Your task to perform on an android device: What's on my calendar tomorrow? Image 0: 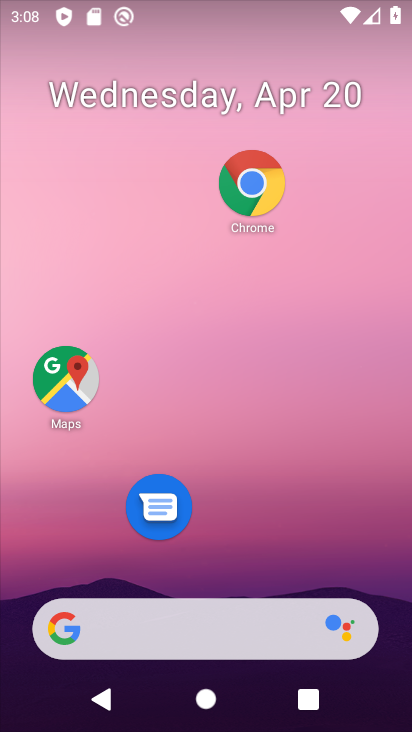
Step 0: drag from (187, 579) to (196, 155)
Your task to perform on an android device: What's on my calendar tomorrow? Image 1: 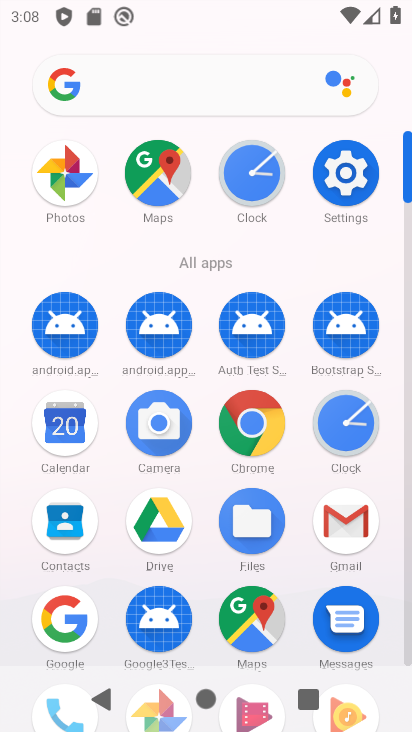
Step 1: click (74, 441)
Your task to perform on an android device: What's on my calendar tomorrow? Image 2: 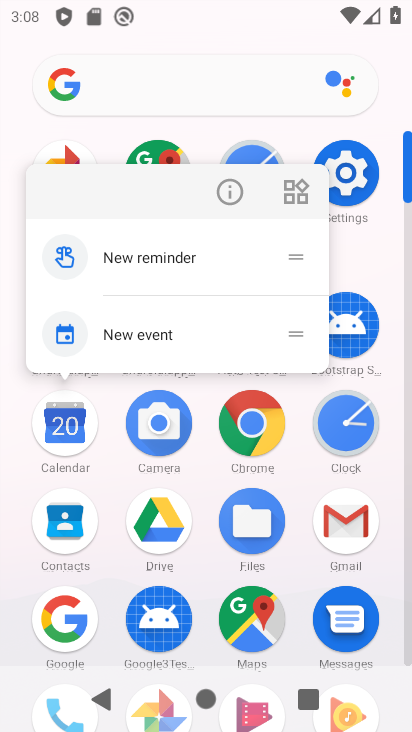
Step 2: click (72, 434)
Your task to perform on an android device: What's on my calendar tomorrow? Image 3: 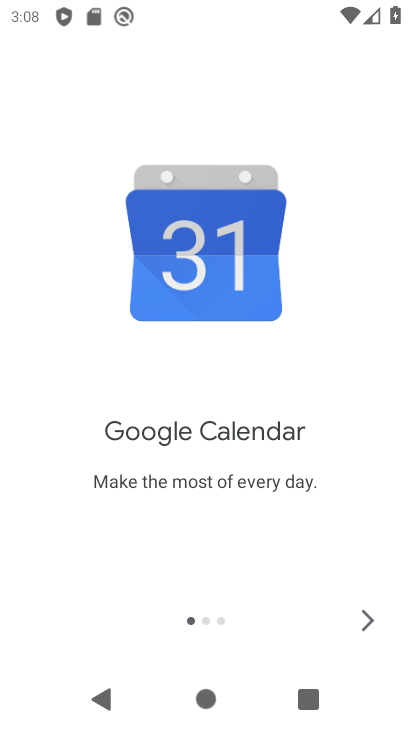
Step 3: click (374, 622)
Your task to perform on an android device: What's on my calendar tomorrow? Image 4: 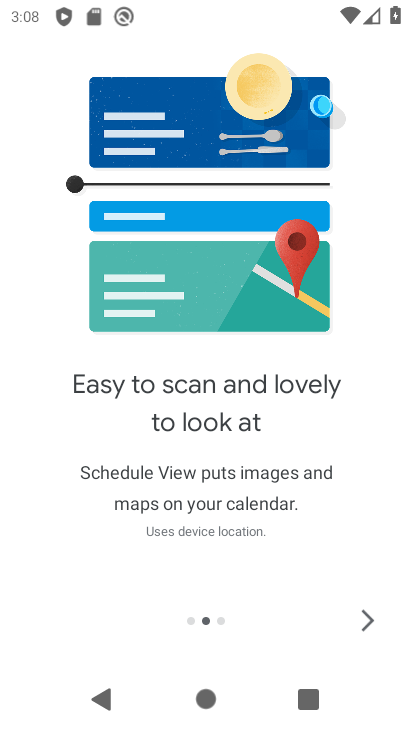
Step 4: click (374, 622)
Your task to perform on an android device: What's on my calendar tomorrow? Image 5: 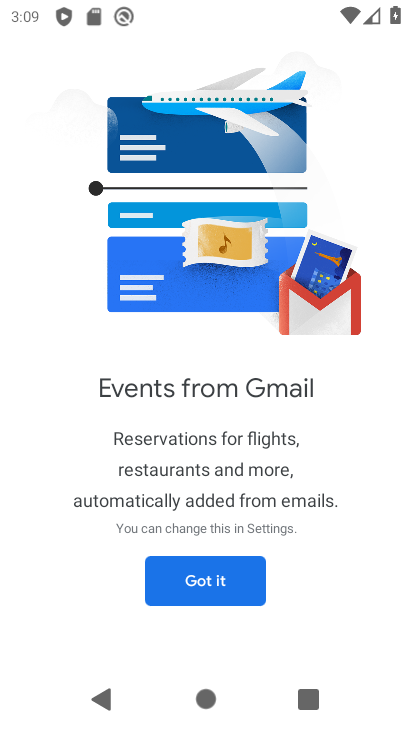
Step 5: click (246, 574)
Your task to perform on an android device: What's on my calendar tomorrow? Image 6: 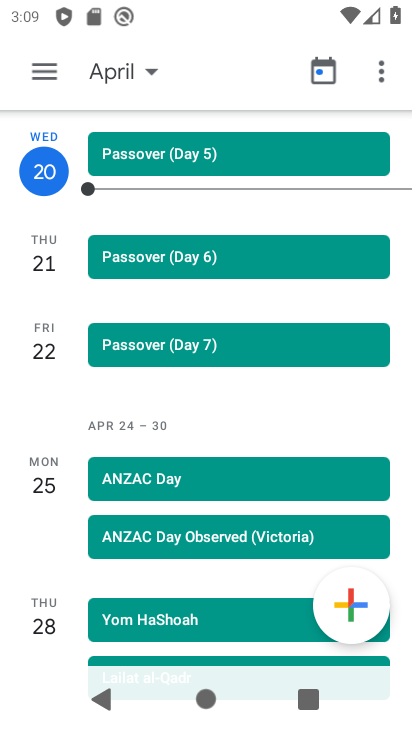
Step 6: click (130, 66)
Your task to perform on an android device: What's on my calendar tomorrow? Image 7: 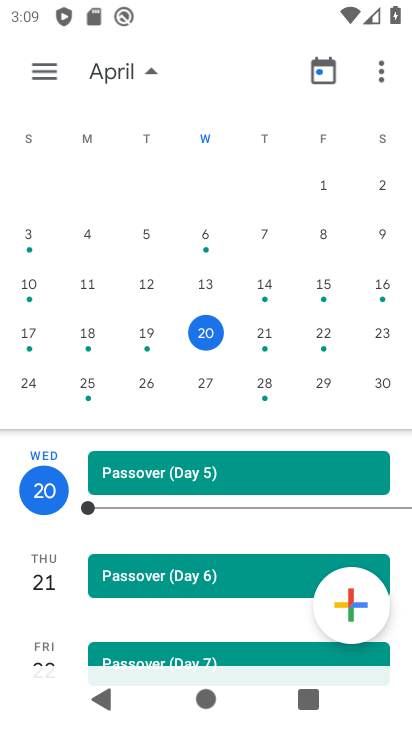
Step 7: drag from (333, 310) to (62, 229)
Your task to perform on an android device: What's on my calendar tomorrow? Image 8: 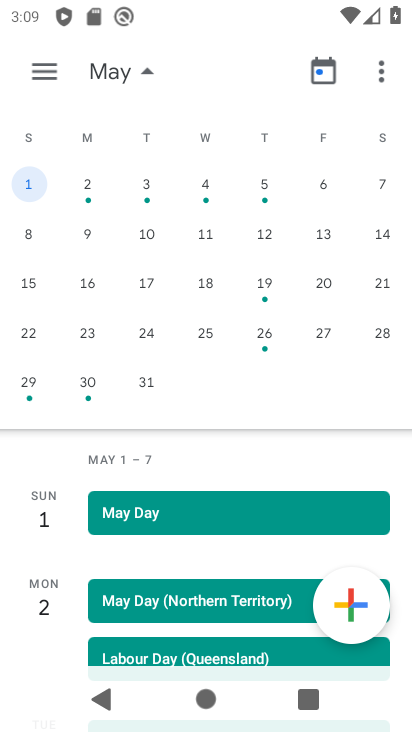
Step 8: drag from (104, 299) to (360, 317)
Your task to perform on an android device: What's on my calendar tomorrow? Image 9: 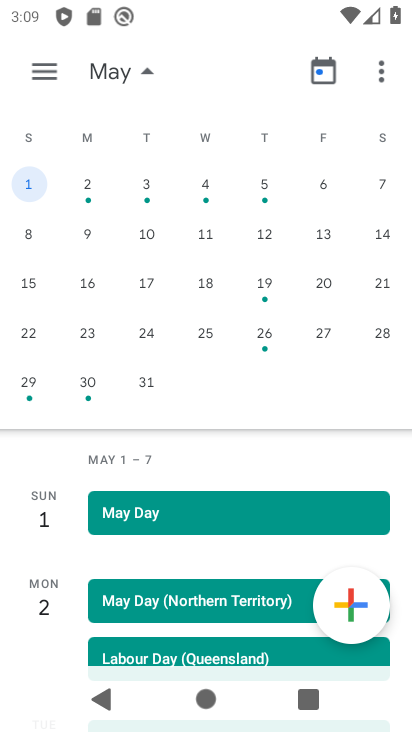
Step 9: drag from (90, 264) to (371, 263)
Your task to perform on an android device: What's on my calendar tomorrow? Image 10: 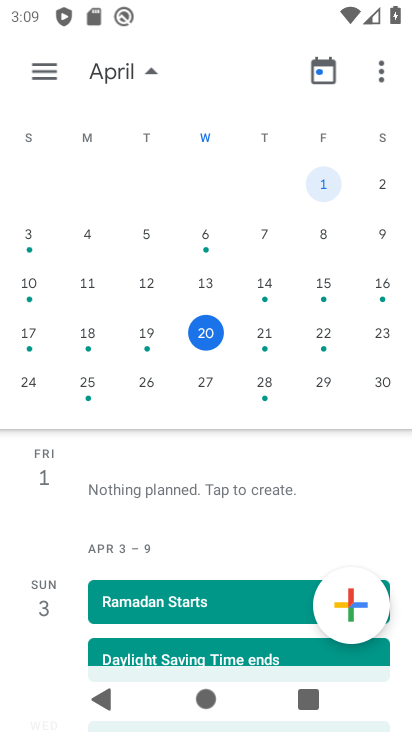
Step 10: click (262, 332)
Your task to perform on an android device: What's on my calendar tomorrow? Image 11: 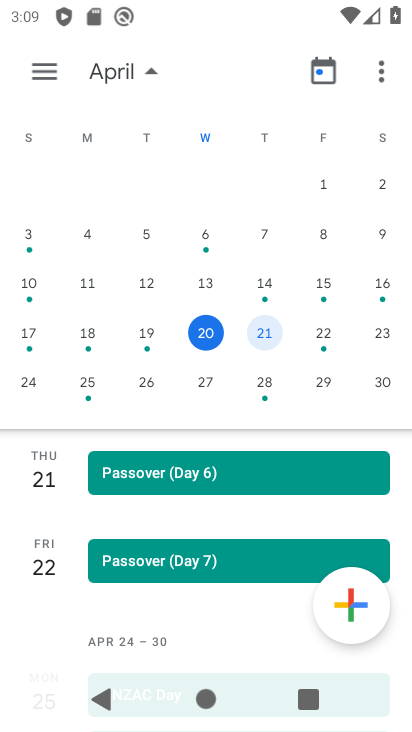
Step 11: task complete